Your task to perform on an android device: Open Wikipedia Image 0: 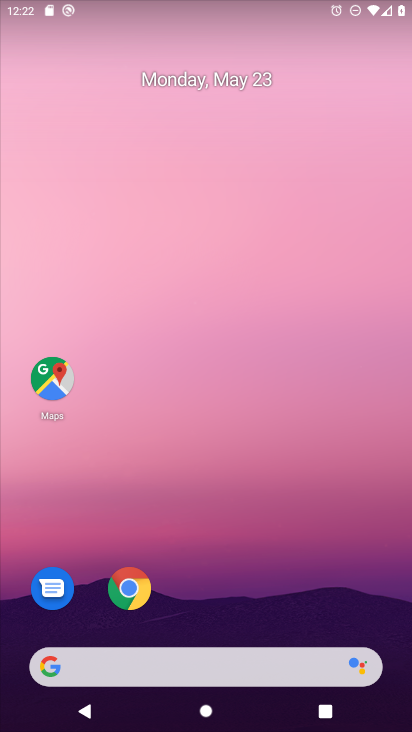
Step 0: drag from (278, 695) to (181, 73)
Your task to perform on an android device: Open Wikipedia Image 1: 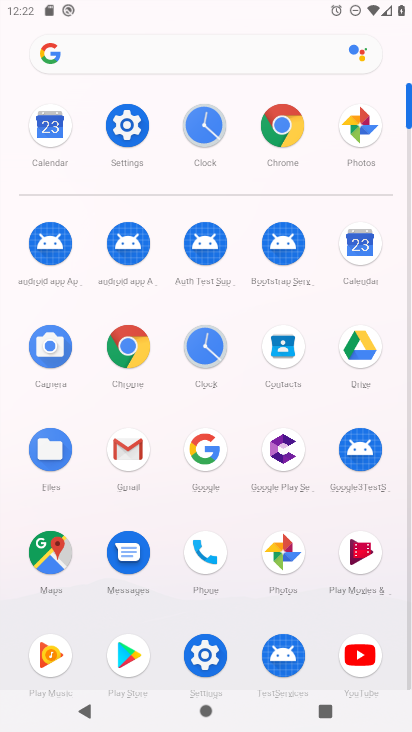
Step 1: click (304, 147)
Your task to perform on an android device: Open Wikipedia Image 2: 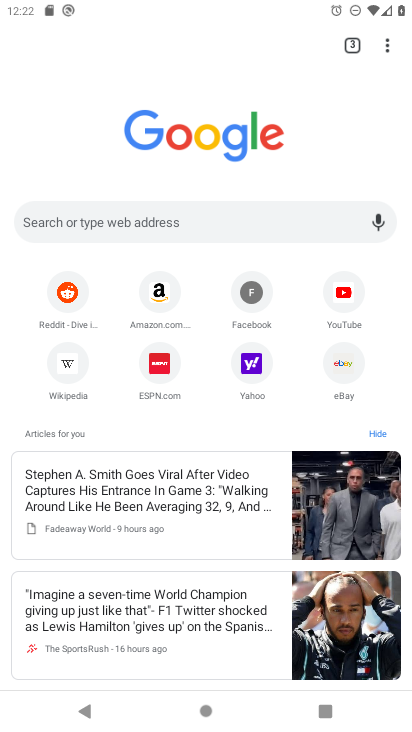
Step 2: click (380, 57)
Your task to perform on an android device: Open Wikipedia Image 3: 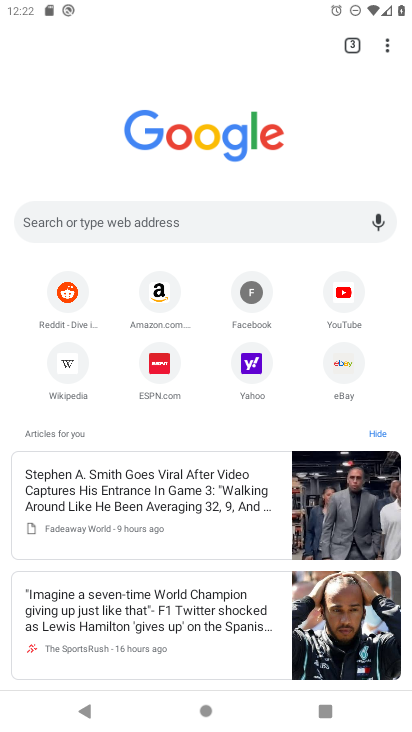
Step 3: click (388, 50)
Your task to perform on an android device: Open Wikipedia Image 4: 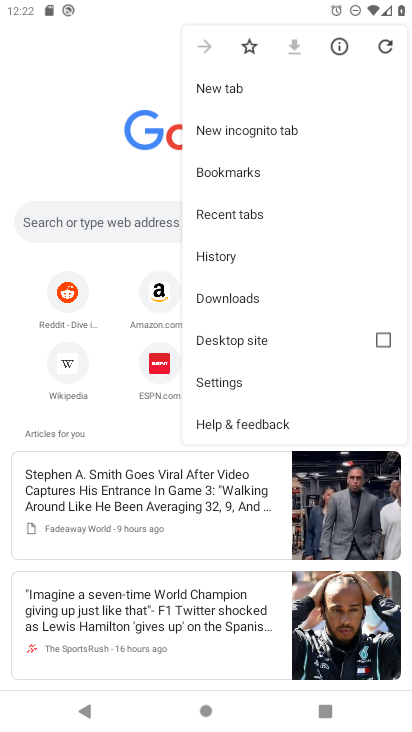
Step 4: click (71, 360)
Your task to perform on an android device: Open Wikipedia Image 5: 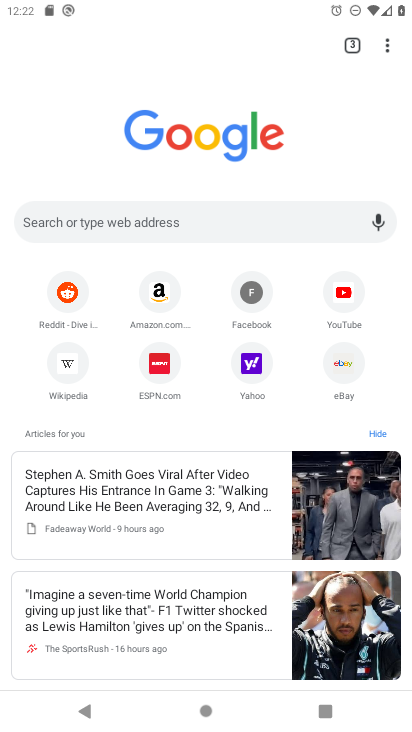
Step 5: click (71, 360)
Your task to perform on an android device: Open Wikipedia Image 6: 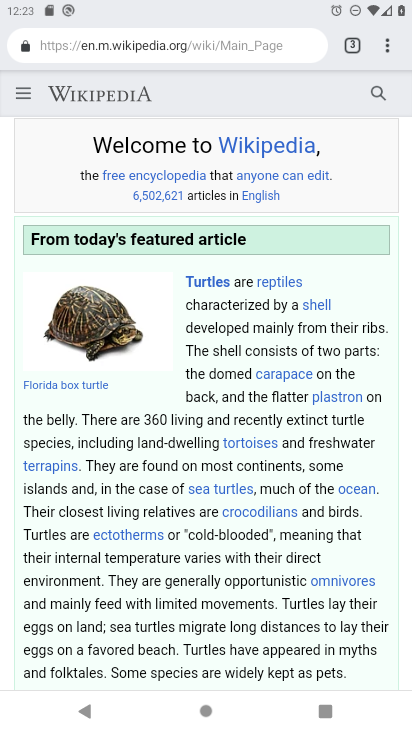
Step 6: click (387, 43)
Your task to perform on an android device: Open Wikipedia Image 7: 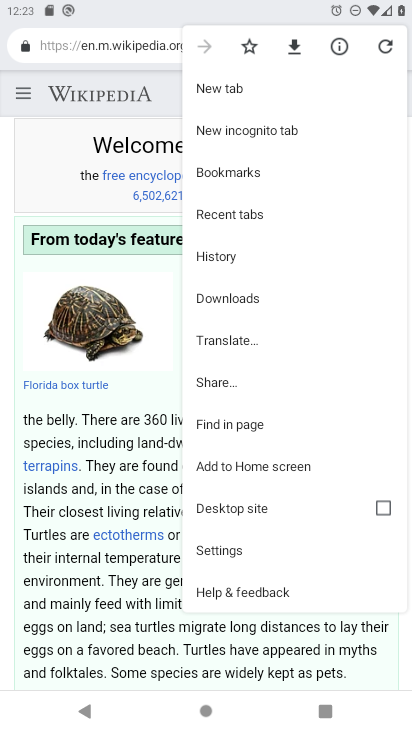
Step 7: click (68, 367)
Your task to perform on an android device: Open Wikipedia Image 8: 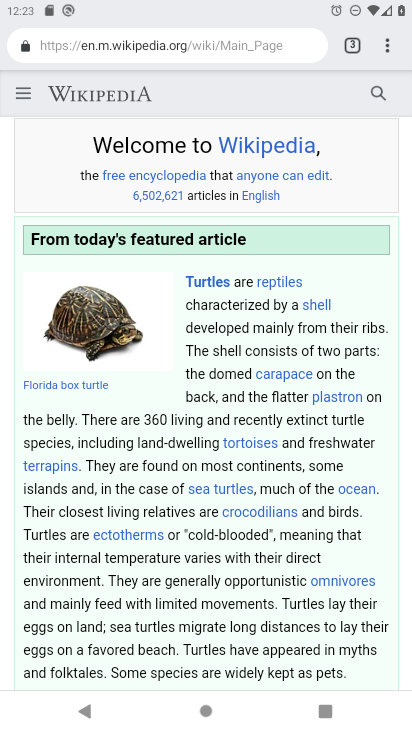
Step 8: task complete